Your task to perform on an android device: turn off javascript in the chrome app Image 0: 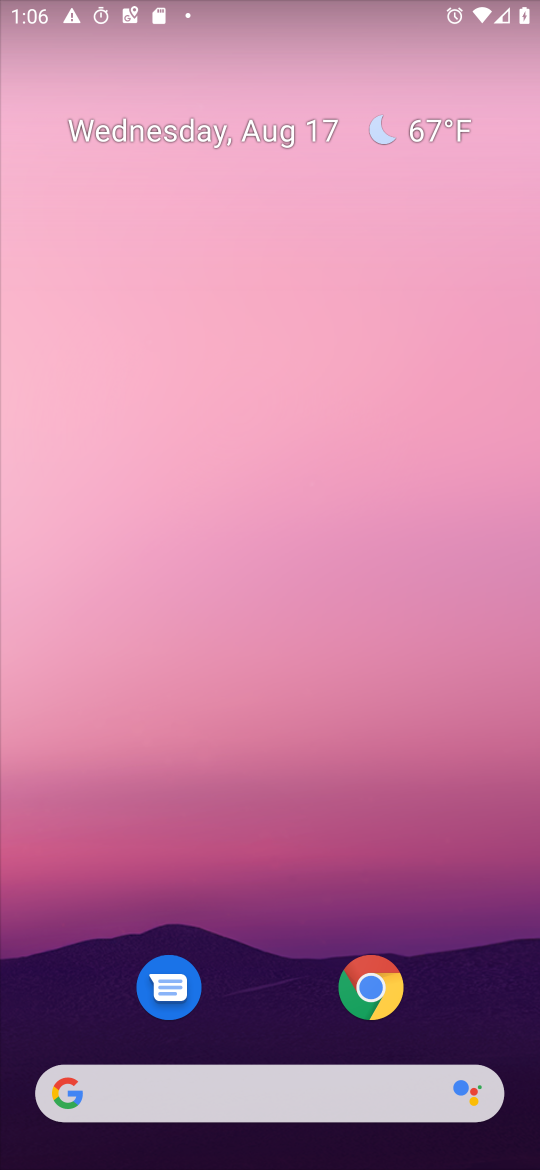
Step 0: click (402, 999)
Your task to perform on an android device: turn off javascript in the chrome app Image 1: 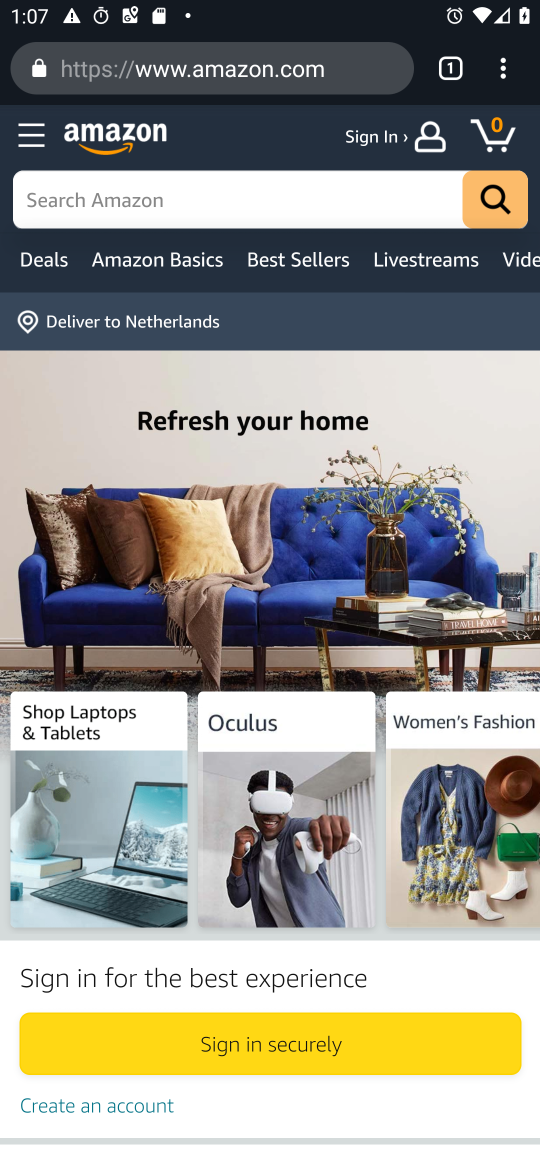
Step 1: click (497, 68)
Your task to perform on an android device: turn off javascript in the chrome app Image 2: 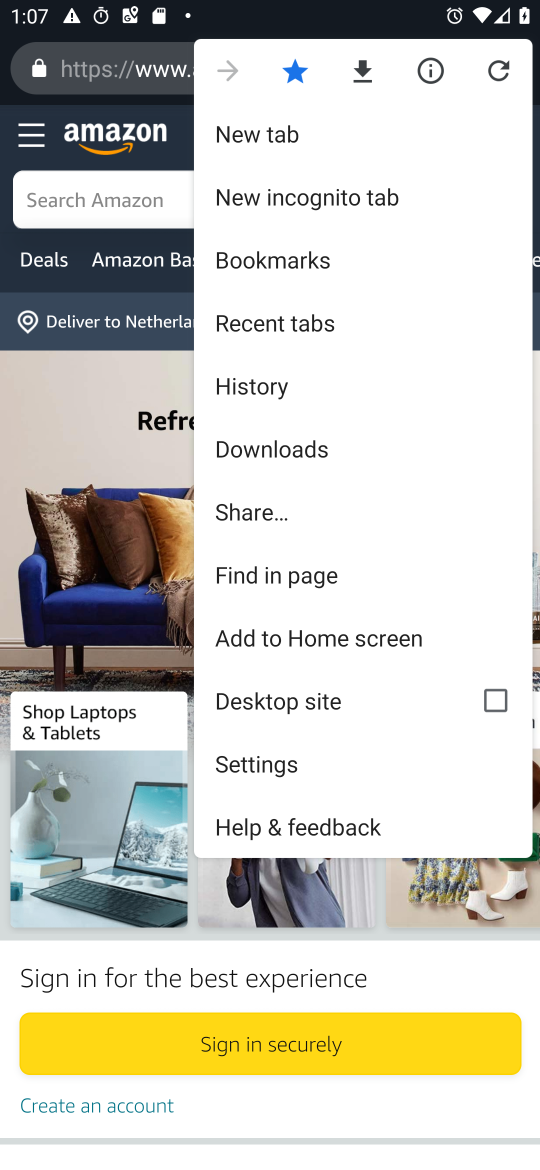
Step 2: click (298, 751)
Your task to perform on an android device: turn off javascript in the chrome app Image 3: 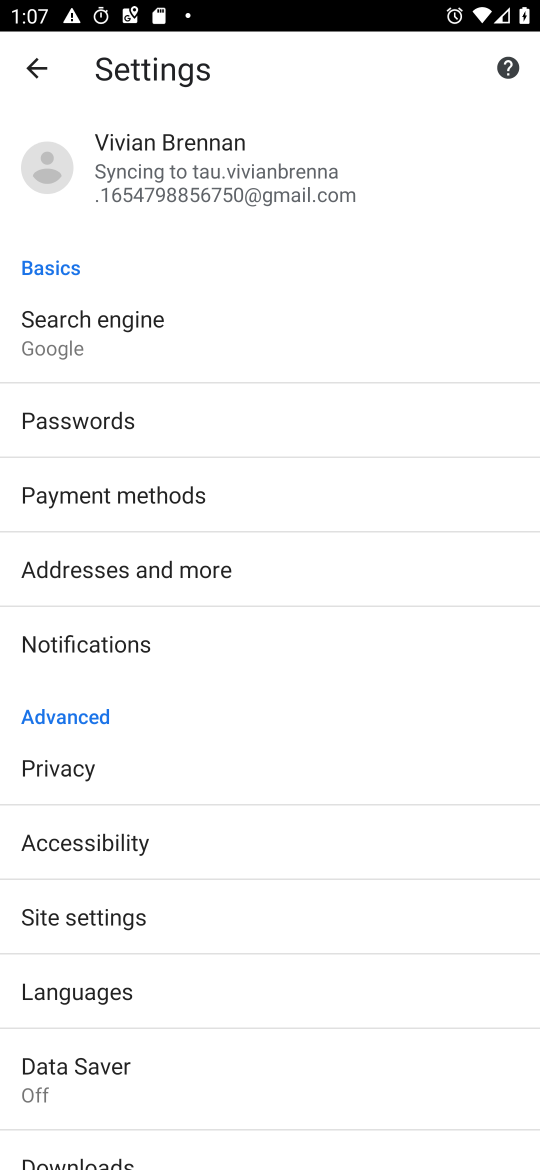
Step 3: click (103, 913)
Your task to perform on an android device: turn off javascript in the chrome app Image 4: 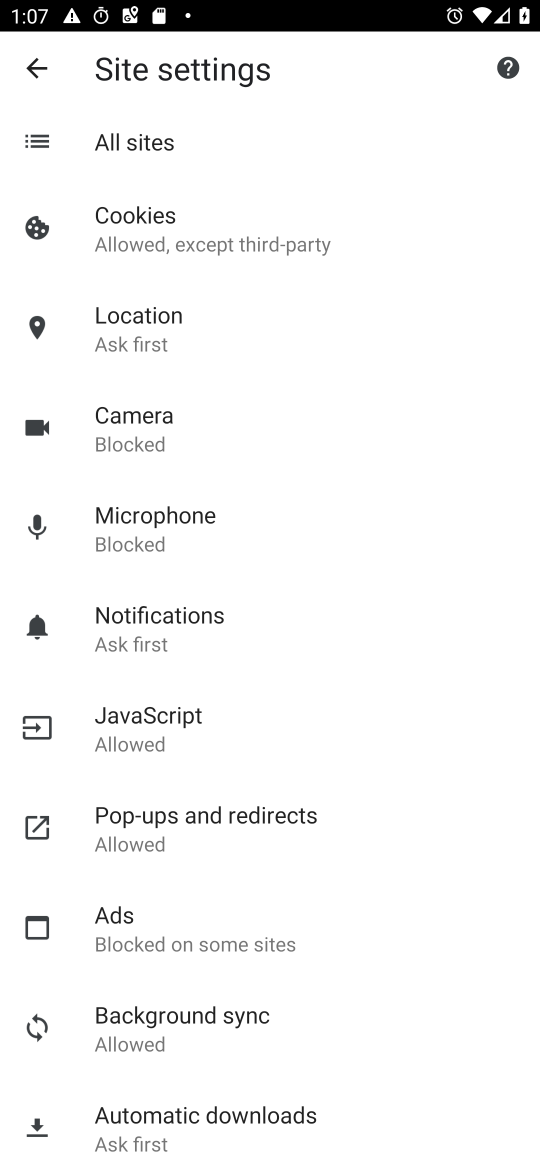
Step 4: click (171, 732)
Your task to perform on an android device: turn off javascript in the chrome app Image 5: 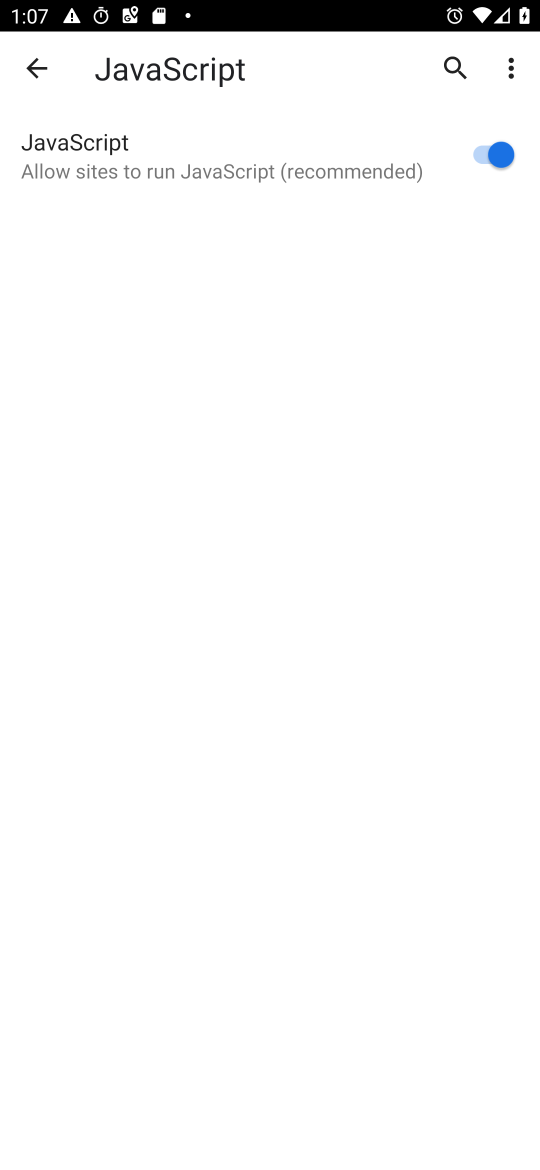
Step 5: click (483, 155)
Your task to perform on an android device: turn off javascript in the chrome app Image 6: 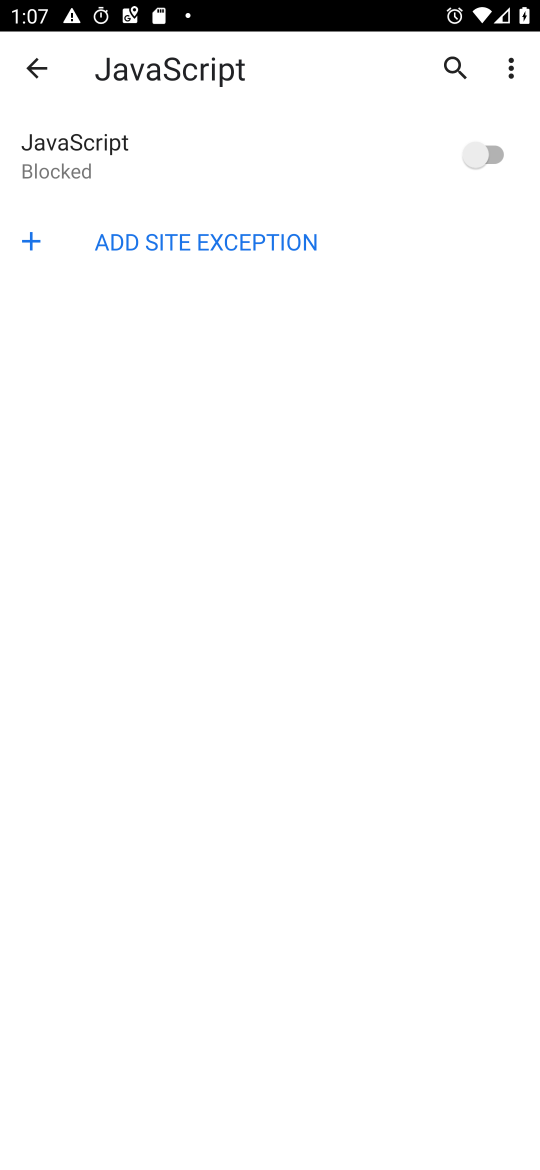
Step 6: task complete